Your task to perform on an android device: Add bose soundlink to the cart on walmart.com Image 0: 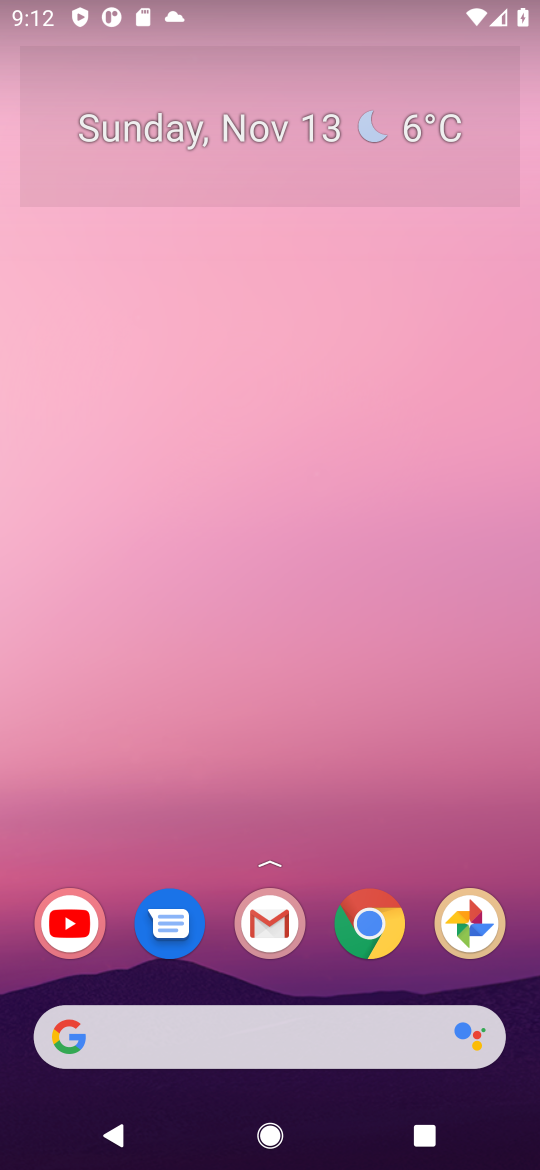
Step 0: click (385, 910)
Your task to perform on an android device: Add bose soundlink to the cart on walmart.com Image 1: 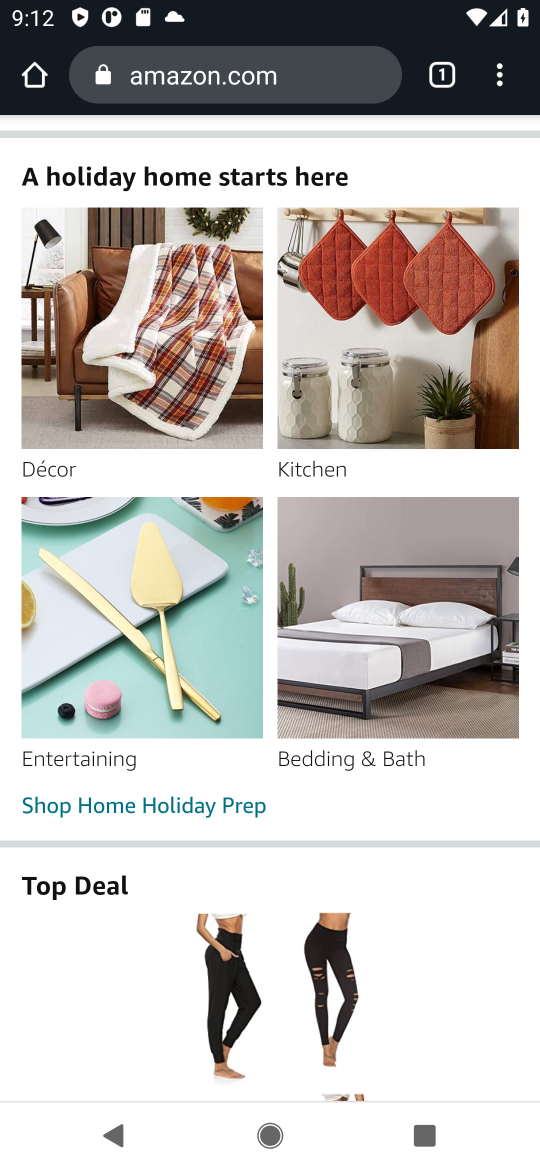
Step 1: click (325, 77)
Your task to perform on an android device: Add bose soundlink to the cart on walmart.com Image 2: 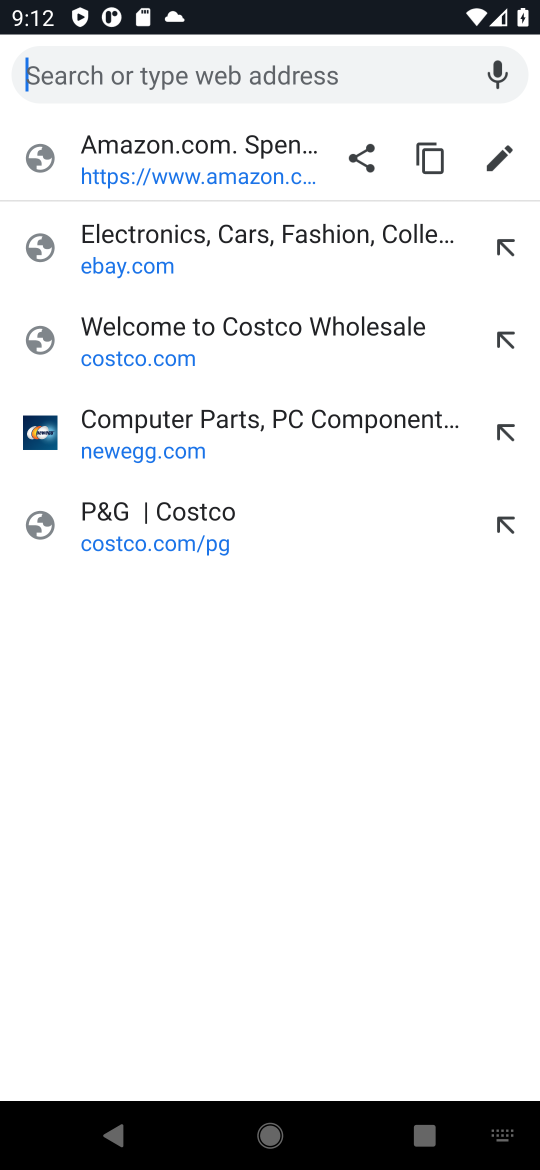
Step 2: press enter
Your task to perform on an android device: Add bose soundlink to the cart on walmart.com Image 3: 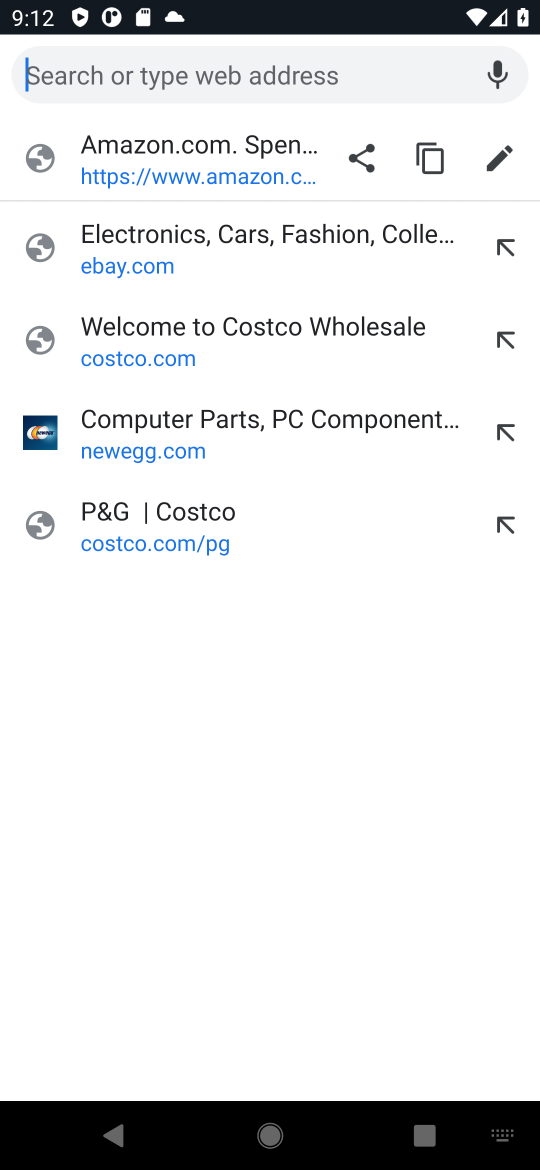
Step 3: type "walmart.com"
Your task to perform on an android device: Add bose soundlink to the cart on walmart.com Image 4: 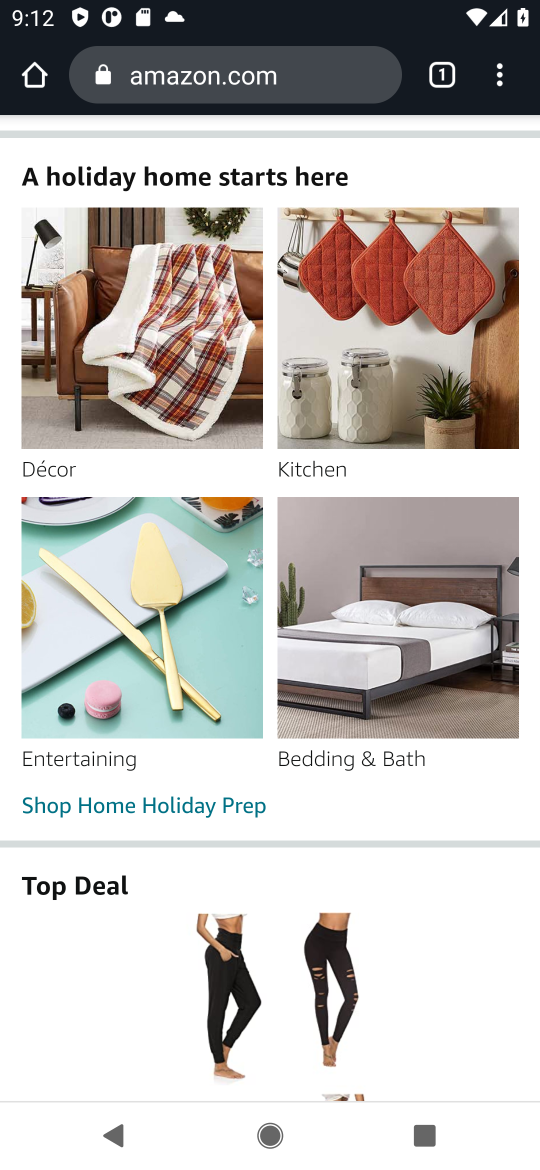
Step 4: click (40, 84)
Your task to perform on an android device: Add bose soundlink to the cart on walmart.com Image 5: 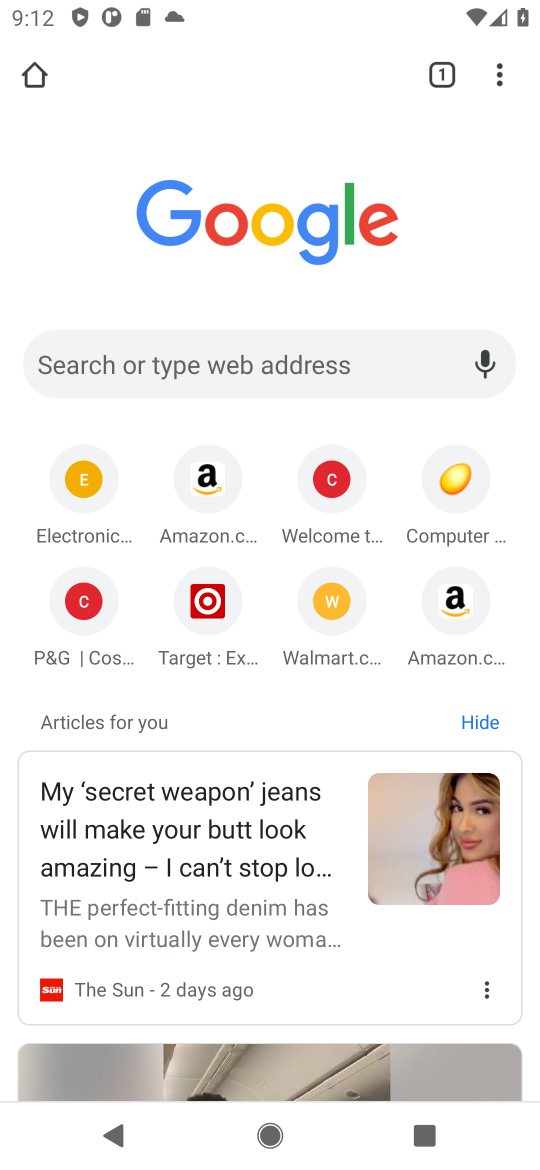
Step 5: click (343, 366)
Your task to perform on an android device: Add bose soundlink to the cart on walmart.com Image 6: 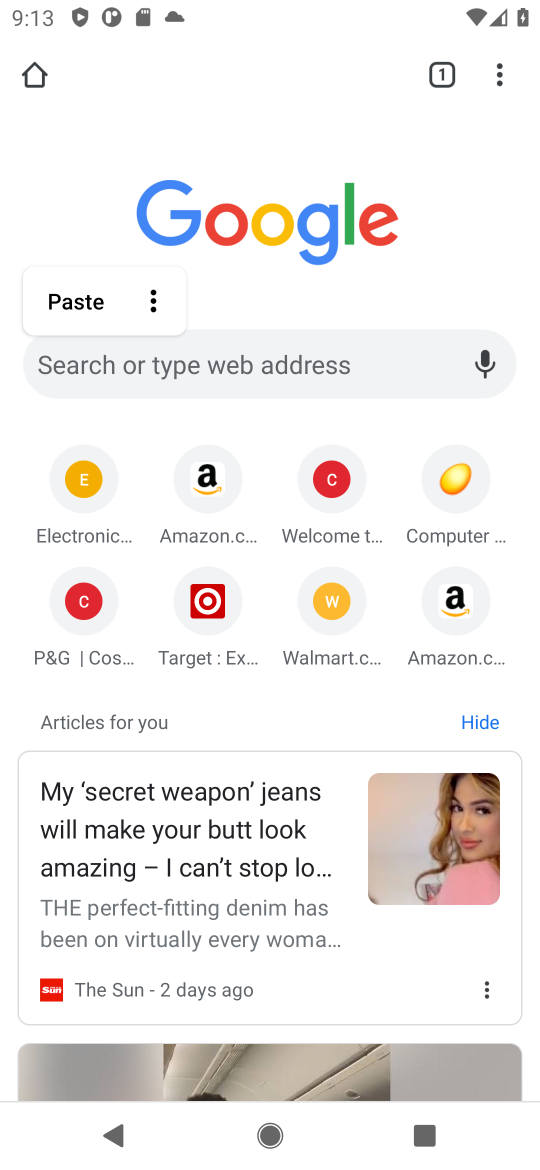
Step 6: click (346, 599)
Your task to perform on an android device: Add bose soundlink to the cart on walmart.com Image 7: 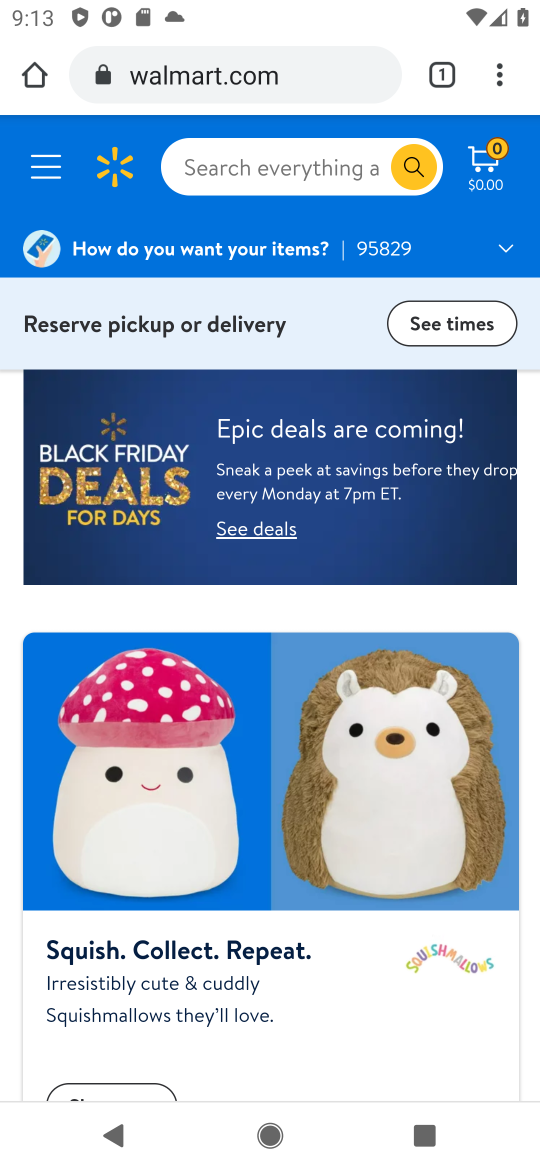
Step 7: click (301, 166)
Your task to perform on an android device: Add bose soundlink to the cart on walmart.com Image 8: 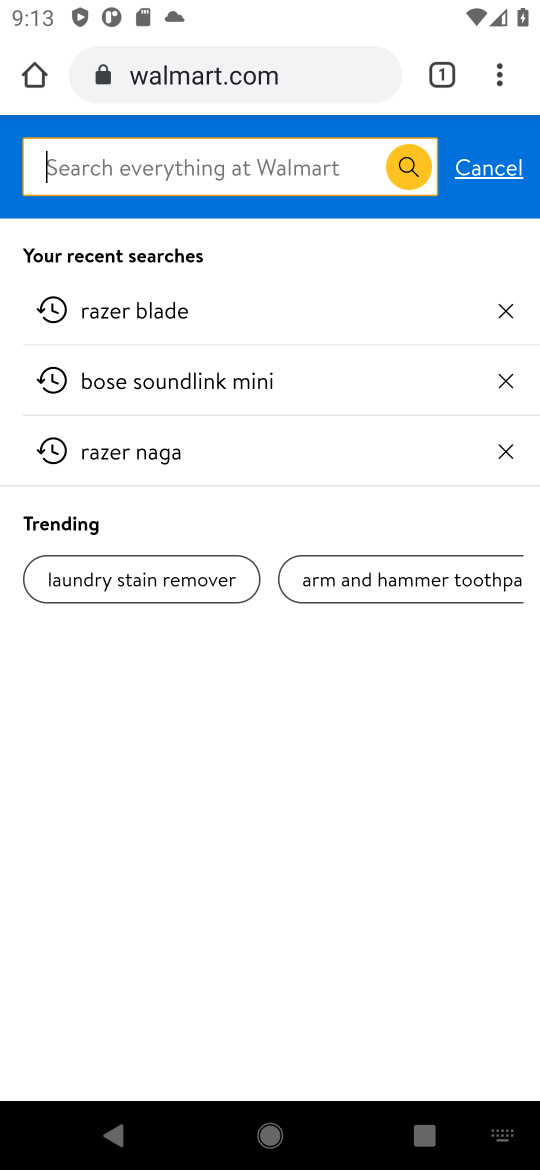
Step 8: type "bose soundlink"
Your task to perform on an android device: Add bose soundlink to the cart on walmart.com Image 9: 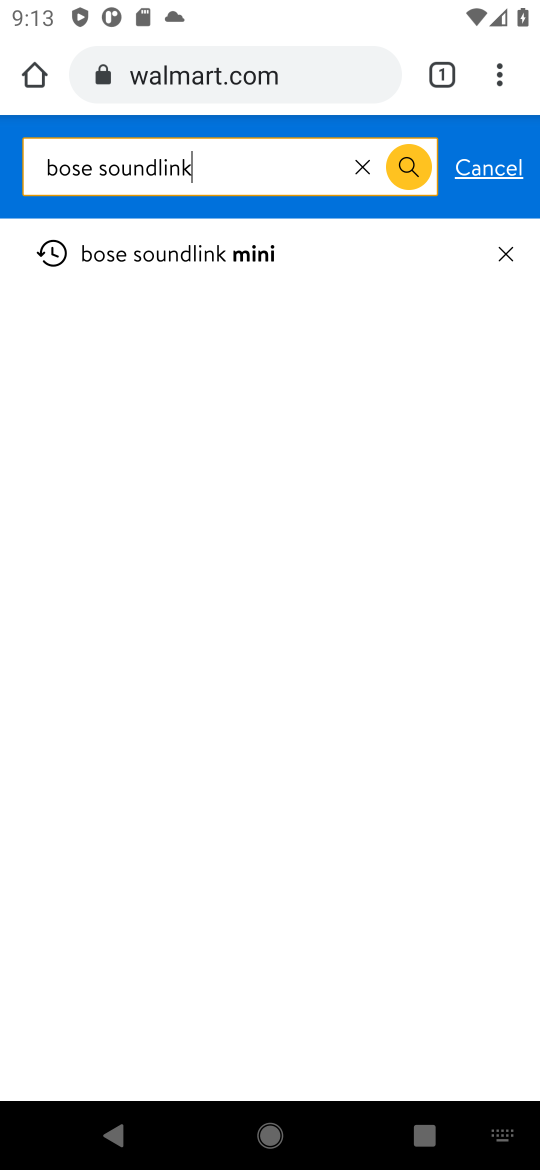
Step 9: press enter
Your task to perform on an android device: Add bose soundlink to the cart on walmart.com Image 10: 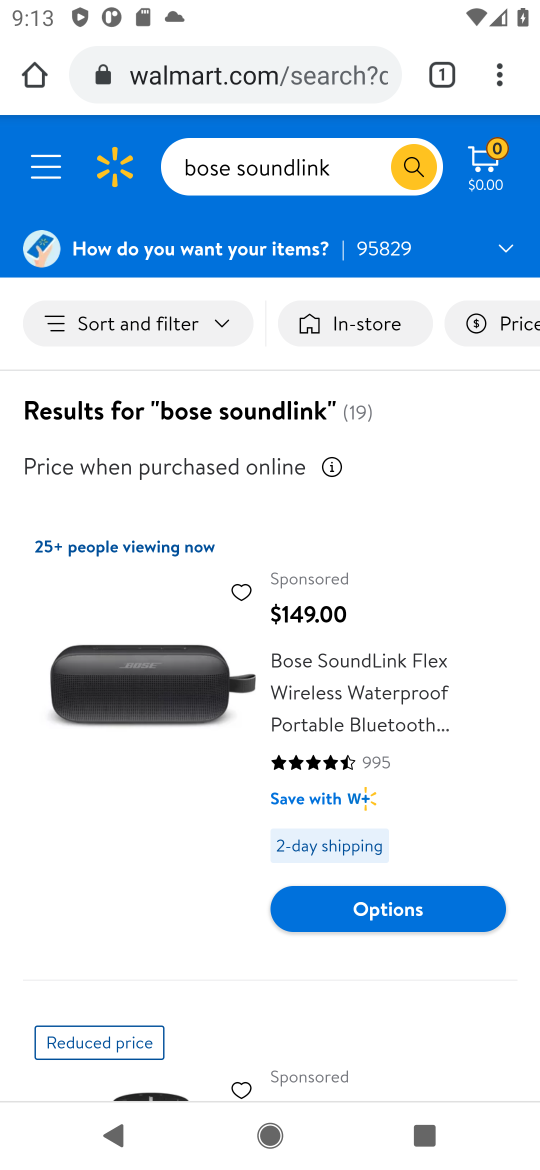
Step 10: click (95, 705)
Your task to perform on an android device: Add bose soundlink to the cart on walmart.com Image 11: 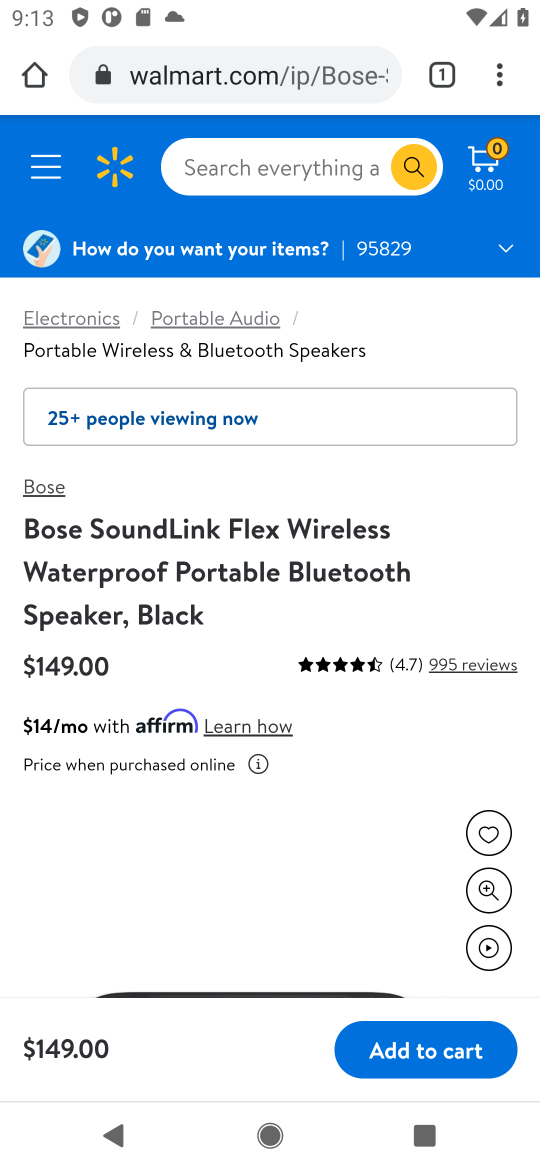
Step 11: click (401, 1050)
Your task to perform on an android device: Add bose soundlink to the cart on walmart.com Image 12: 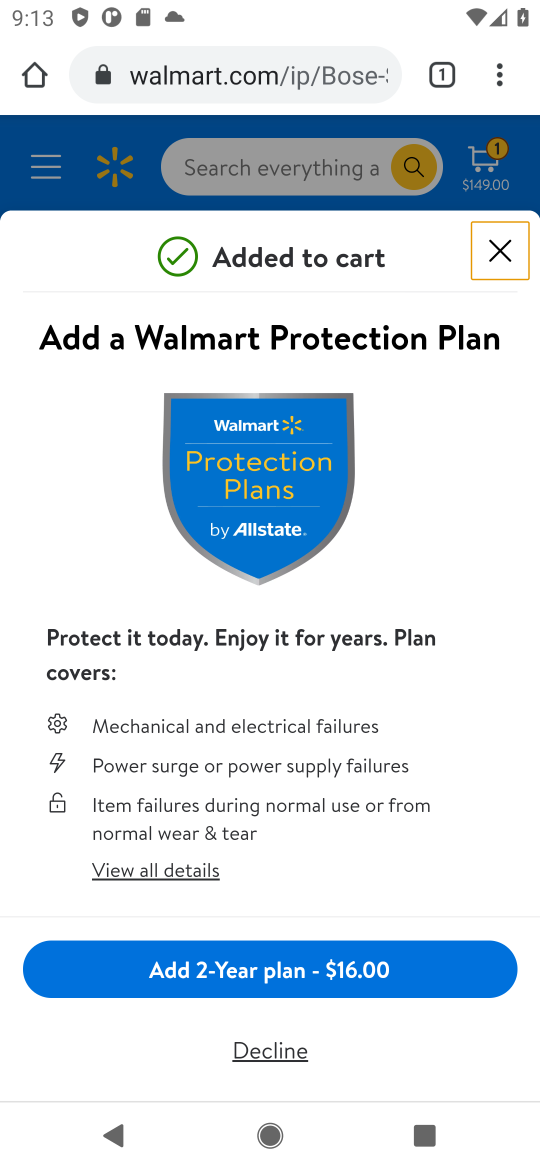
Step 12: task complete